Your task to perform on an android device: Go to calendar. Show me events next week Image 0: 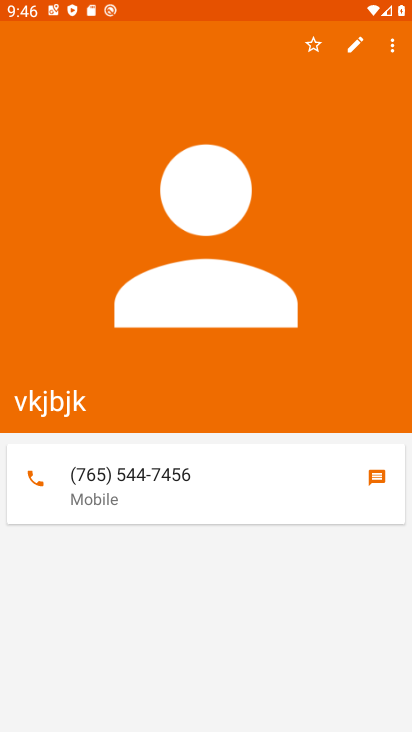
Step 0: press home button
Your task to perform on an android device: Go to calendar. Show me events next week Image 1: 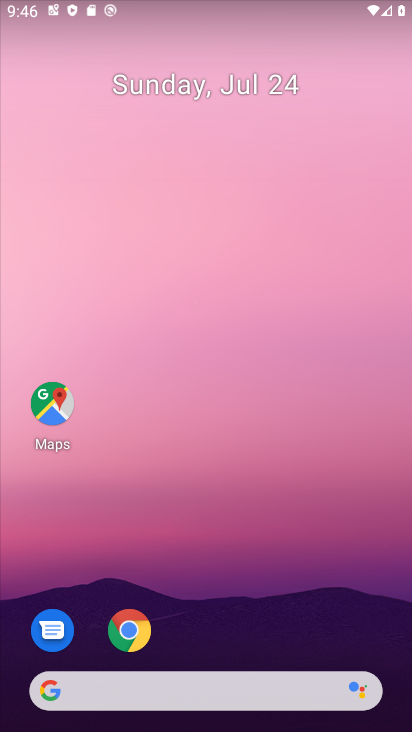
Step 1: drag from (249, 640) to (248, 100)
Your task to perform on an android device: Go to calendar. Show me events next week Image 2: 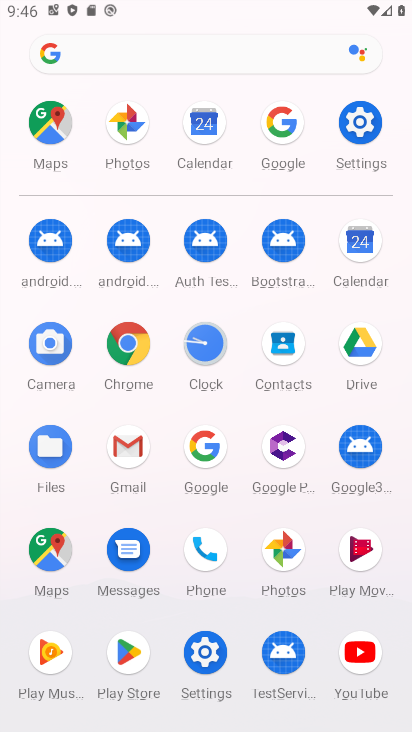
Step 2: click (364, 269)
Your task to perform on an android device: Go to calendar. Show me events next week Image 3: 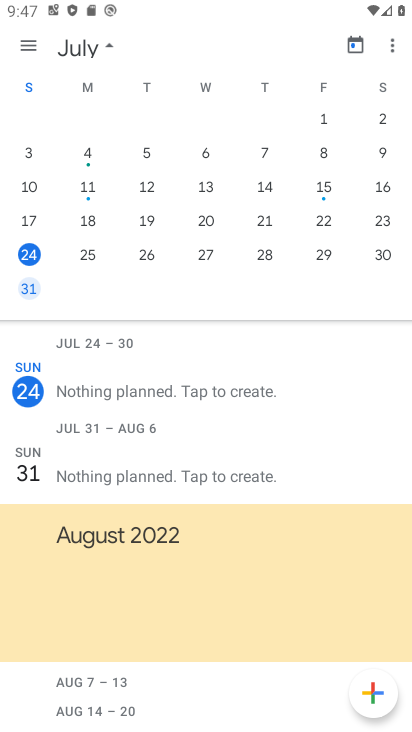
Step 3: click (26, 294)
Your task to perform on an android device: Go to calendar. Show me events next week Image 4: 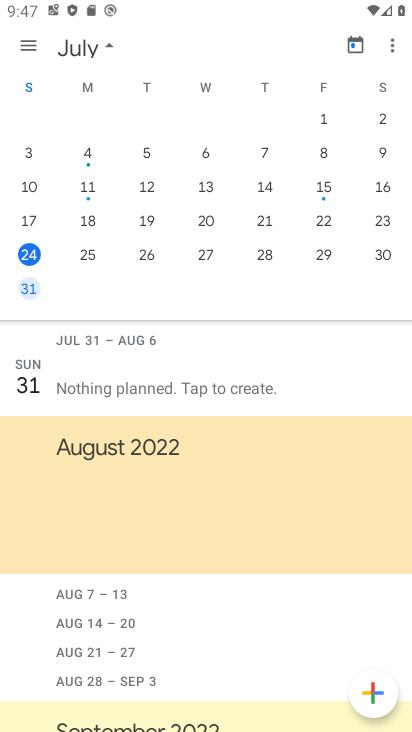
Step 4: click (27, 293)
Your task to perform on an android device: Go to calendar. Show me events next week Image 5: 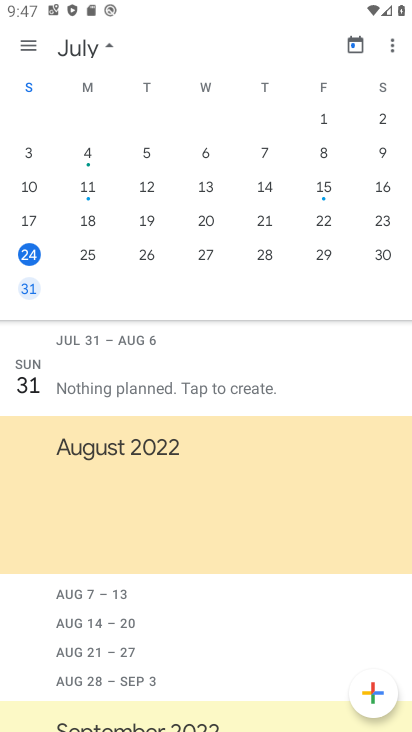
Step 5: click (27, 293)
Your task to perform on an android device: Go to calendar. Show me events next week Image 6: 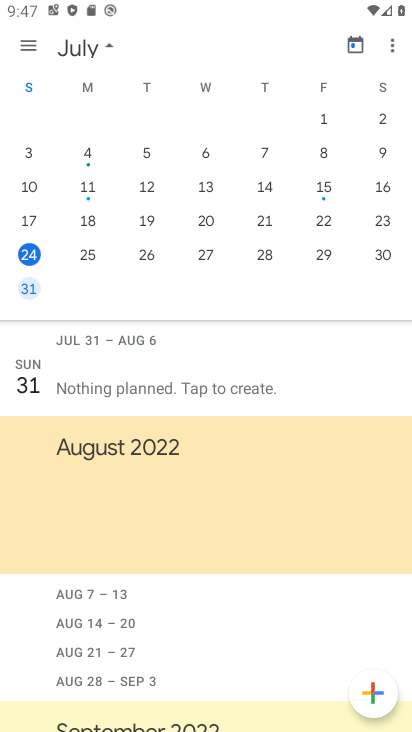
Step 6: task complete